Your task to perform on an android device: Clear the cart on walmart.com. Add "usb-a to usb-b" to the cart on walmart.com, then select checkout. Image 0: 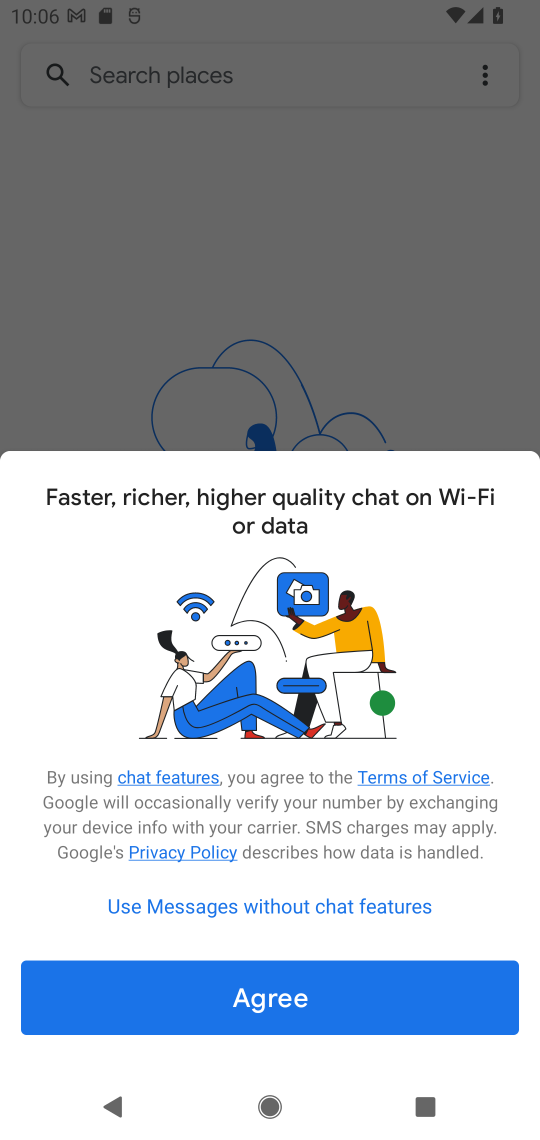
Step 0: press home button
Your task to perform on an android device: Clear the cart on walmart.com. Add "usb-a to usb-b" to the cart on walmart.com, then select checkout. Image 1: 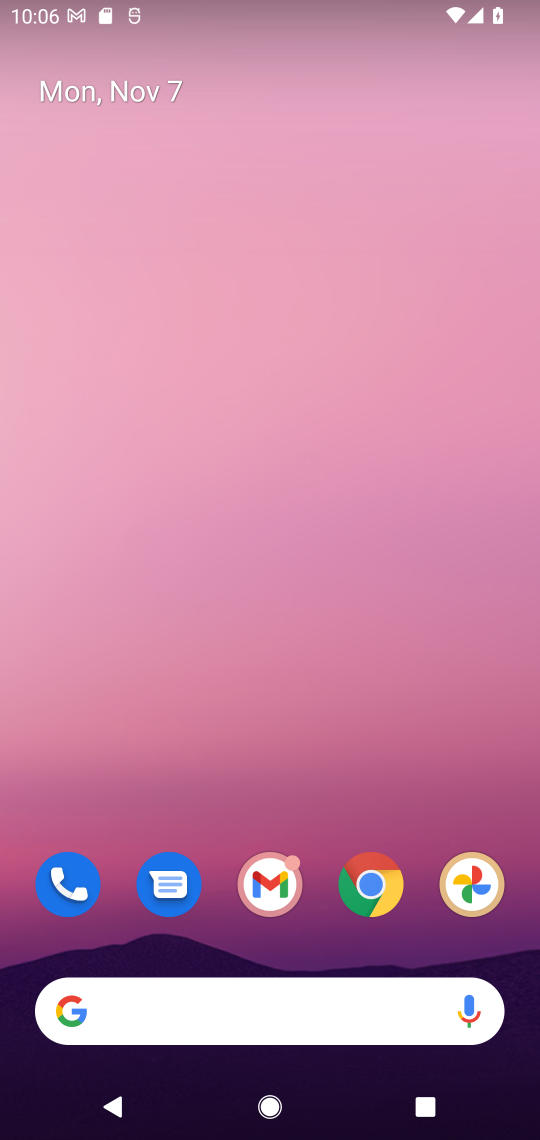
Step 1: click (380, 886)
Your task to perform on an android device: Clear the cart on walmart.com. Add "usb-a to usb-b" to the cart on walmart.com, then select checkout. Image 2: 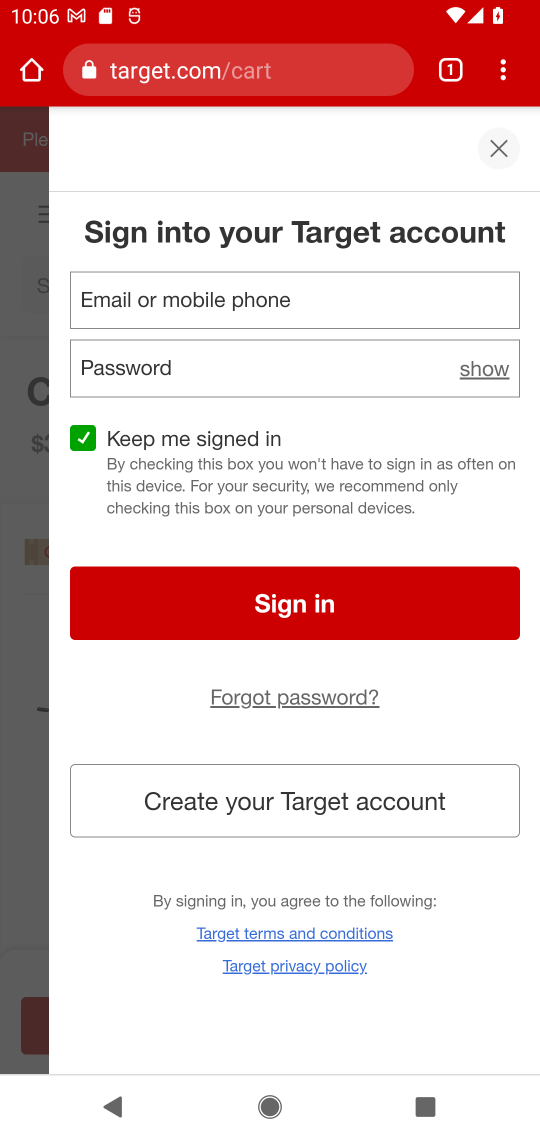
Step 2: click (327, 77)
Your task to perform on an android device: Clear the cart on walmart.com. Add "usb-a to usb-b" to the cart on walmart.com, then select checkout. Image 3: 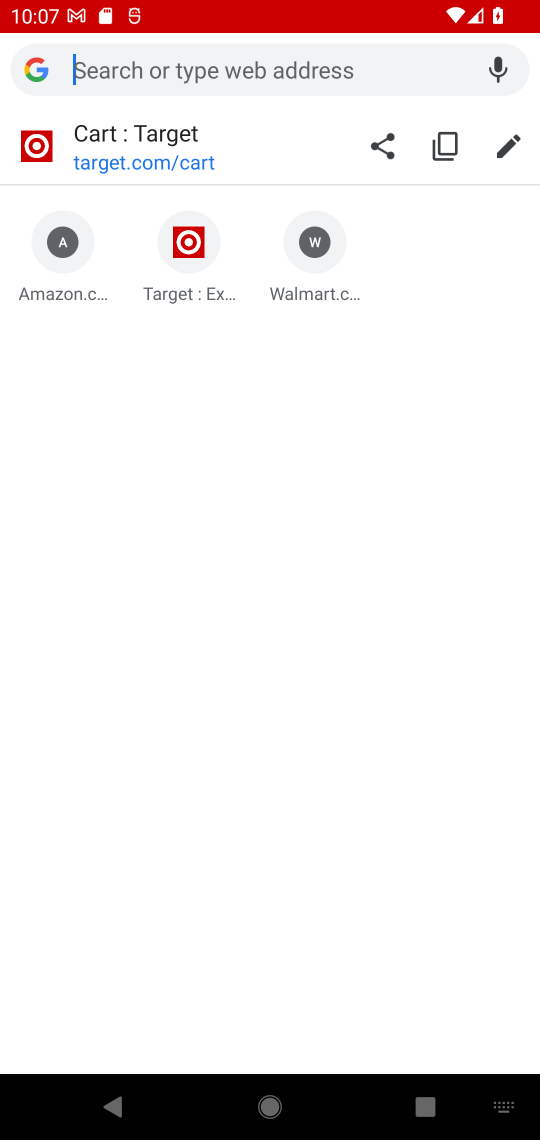
Step 3: type "walmart.com"
Your task to perform on an android device: Clear the cart on walmart.com. Add "usb-a to usb-b" to the cart on walmart.com, then select checkout. Image 4: 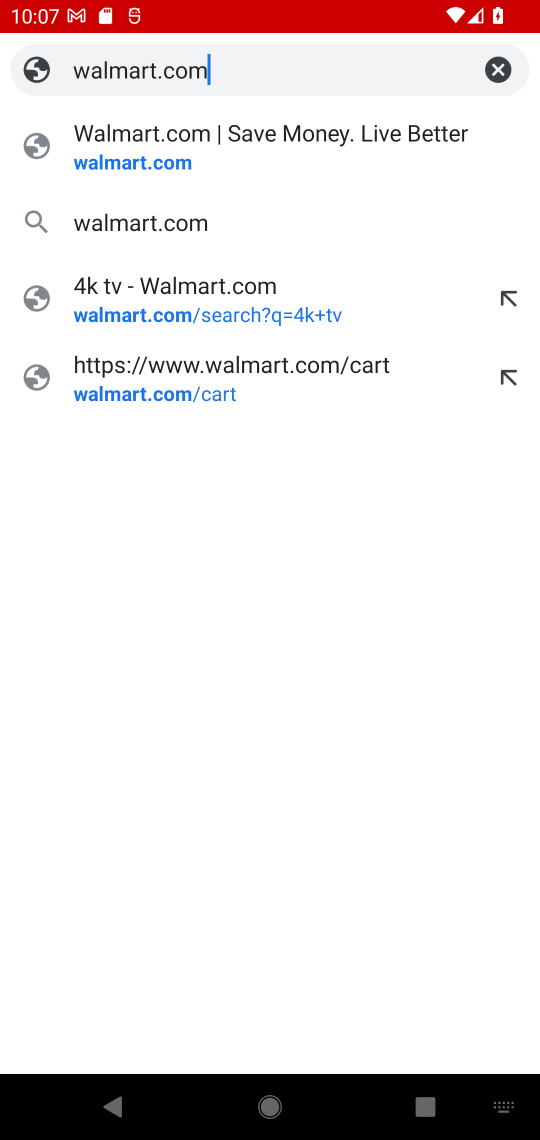
Step 4: click (198, 221)
Your task to perform on an android device: Clear the cart on walmart.com. Add "usb-a to usb-b" to the cart on walmart.com, then select checkout. Image 5: 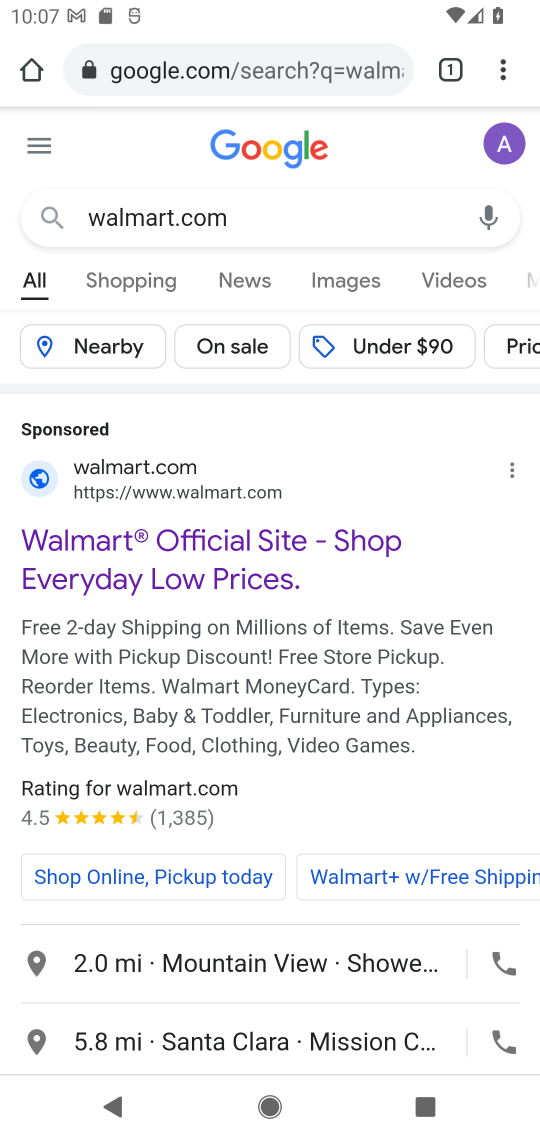
Step 5: click (188, 482)
Your task to perform on an android device: Clear the cart on walmart.com. Add "usb-a to usb-b" to the cart on walmart.com, then select checkout. Image 6: 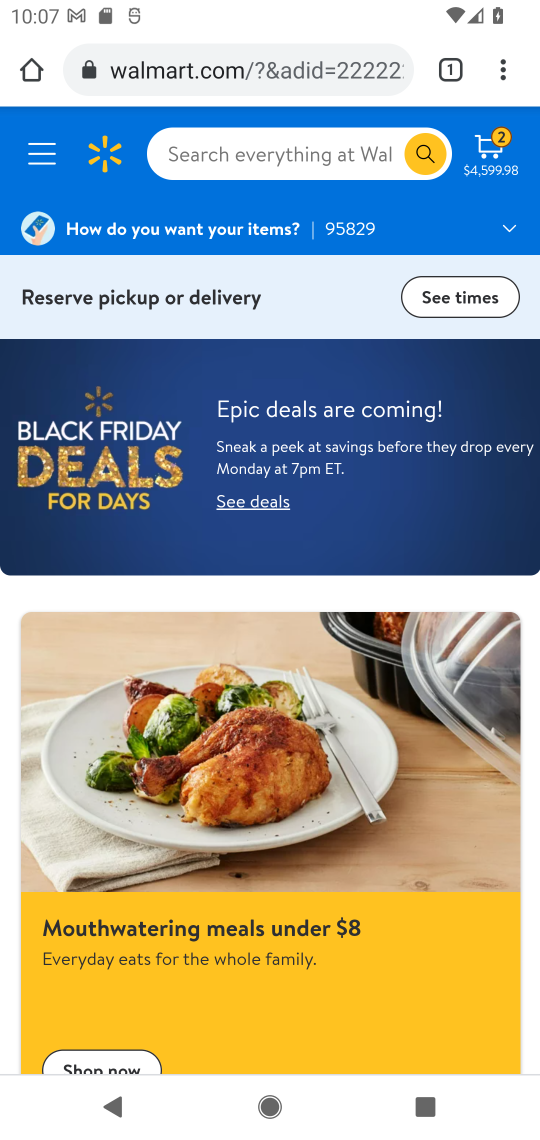
Step 6: click (498, 148)
Your task to perform on an android device: Clear the cart on walmart.com. Add "usb-a to usb-b" to the cart on walmart.com, then select checkout. Image 7: 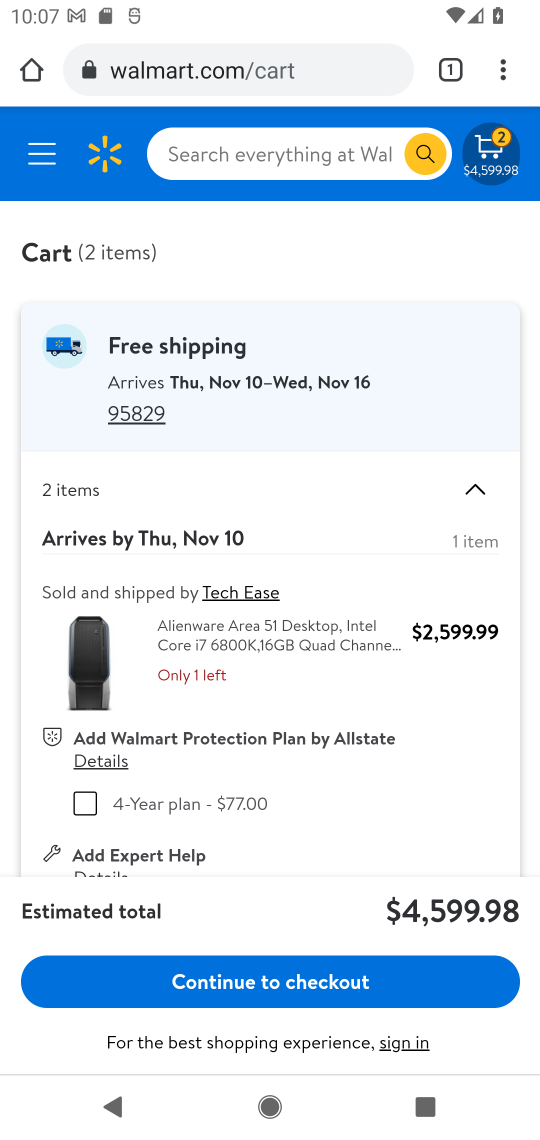
Step 7: drag from (403, 742) to (397, 561)
Your task to perform on an android device: Clear the cart on walmart.com. Add "usb-a to usb-b" to the cart on walmart.com, then select checkout. Image 8: 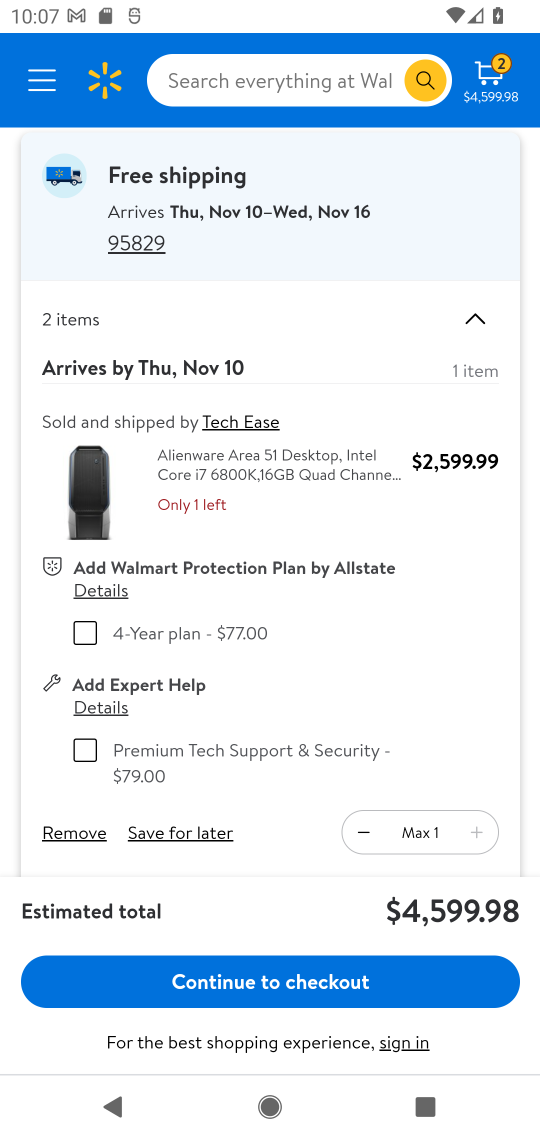
Step 8: drag from (481, 658) to (460, 506)
Your task to perform on an android device: Clear the cart on walmart.com. Add "usb-a to usb-b" to the cart on walmart.com, then select checkout. Image 9: 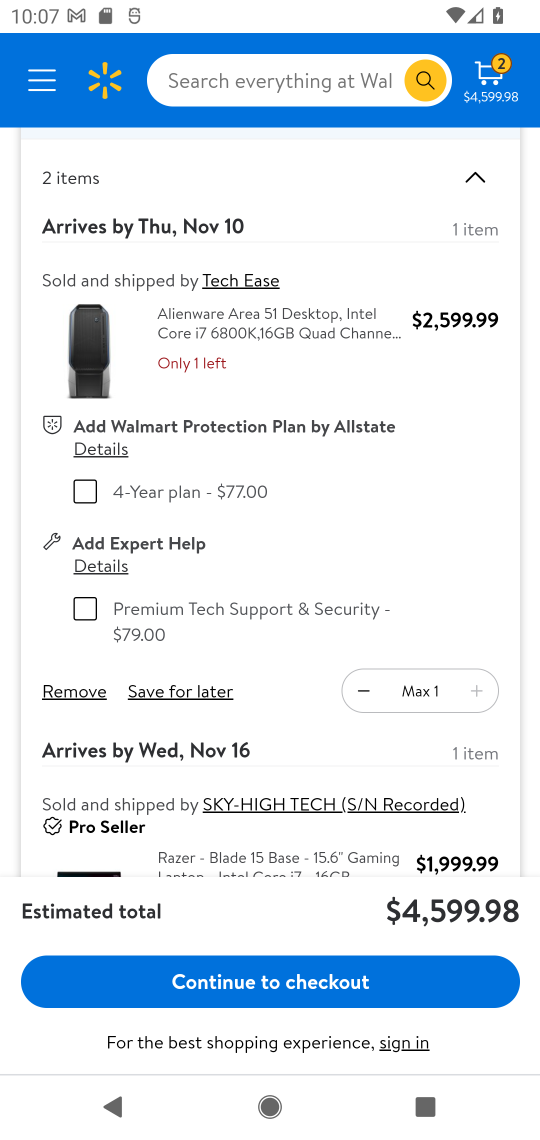
Step 9: click (87, 688)
Your task to perform on an android device: Clear the cart on walmart.com. Add "usb-a to usb-b" to the cart on walmart.com, then select checkout. Image 10: 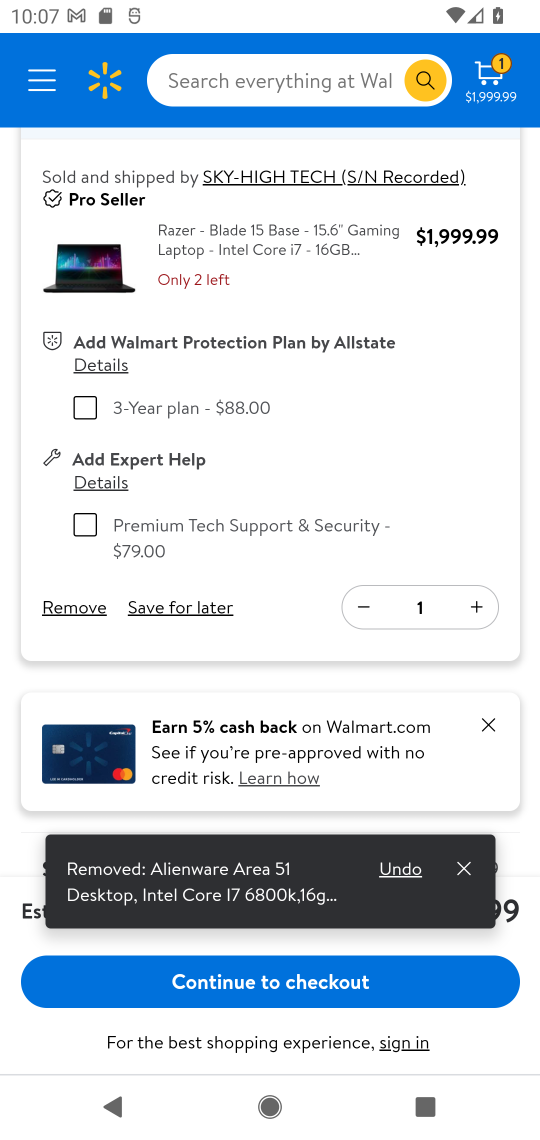
Step 10: click (95, 612)
Your task to perform on an android device: Clear the cart on walmart.com. Add "usb-a to usb-b" to the cart on walmart.com, then select checkout. Image 11: 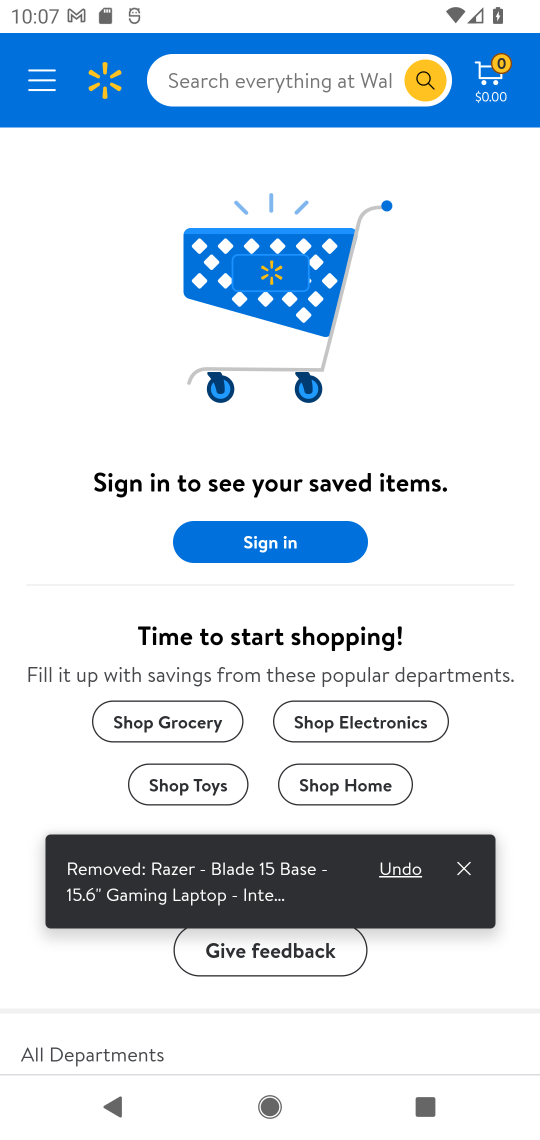
Step 11: click (273, 70)
Your task to perform on an android device: Clear the cart on walmart.com. Add "usb-a to usb-b" to the cart on walmart.com, then select checkout. Image 12: 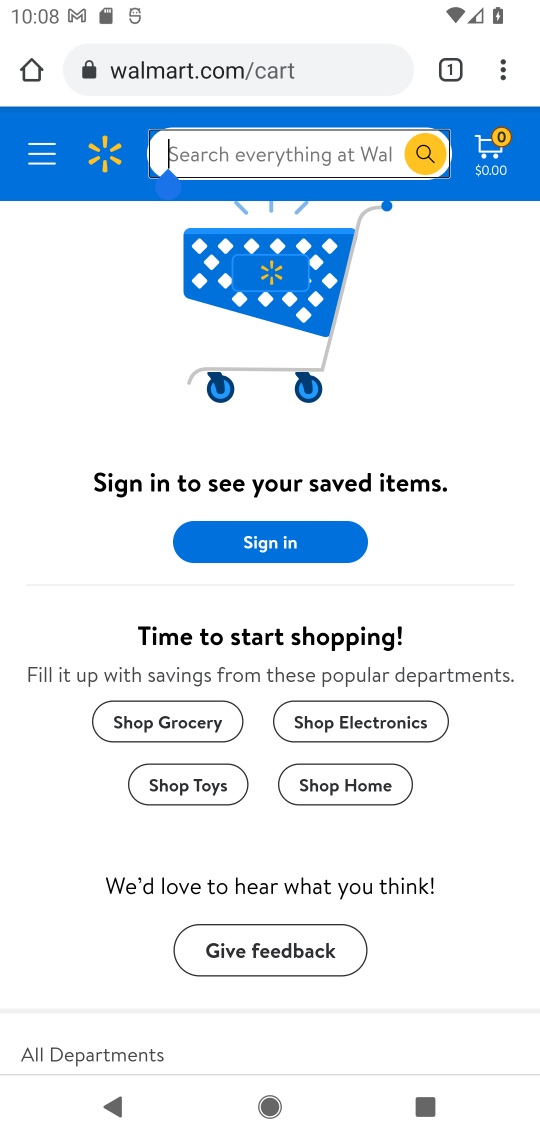
Step 12: type "usb-a to usb-b"
Your task to perform on an android device: Clear the cart on walmart.com. Add "usb-a to usb-b" to the cart on walmart.com, then select checkout. Image 13: 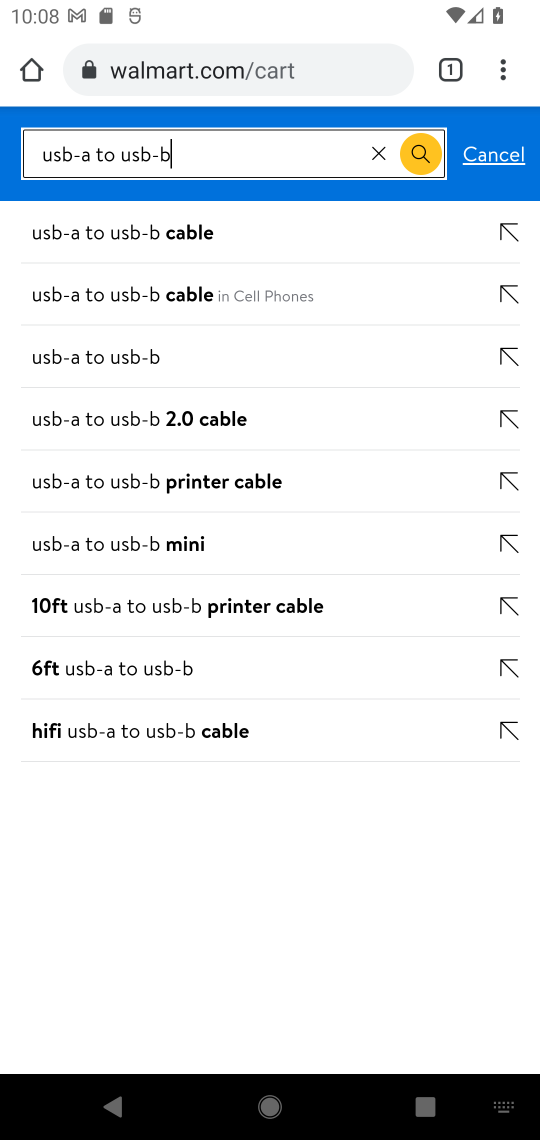
Step 13: click (118, 360)
Your task to perform on an android device: Clear the cart on walmart.com. Add "usb-a to usb-b" to the cart on walmart.com, then select checkout. Image 14: 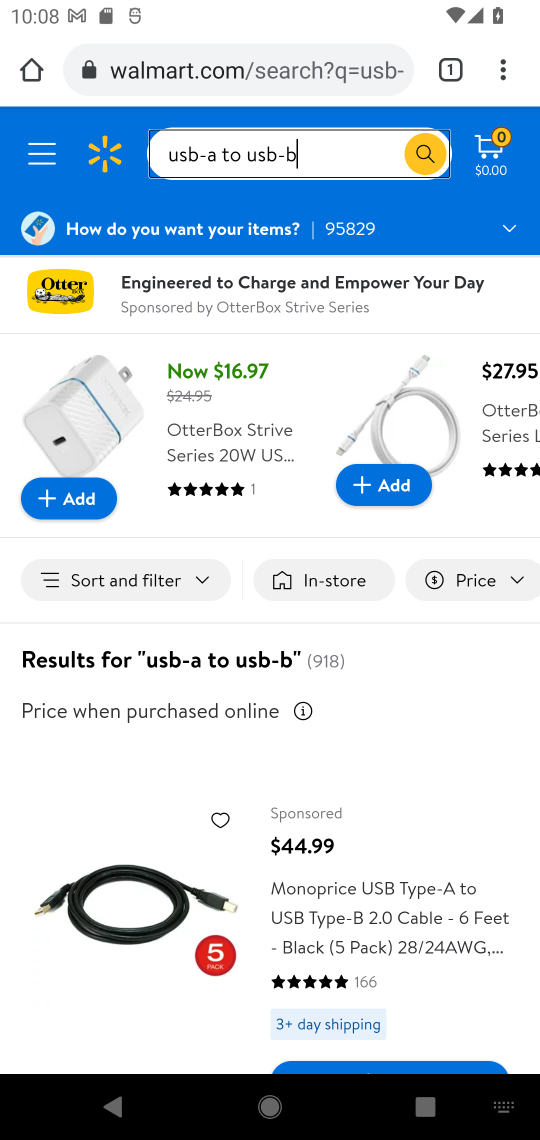
Step 14: drag from (444, 810) to (461, 534)
Your task to perform on an android device: Clear the cart on walmart.com. Add "usb-a to usb-b" to the cart on walmart.com, then select checkout. Image 15: 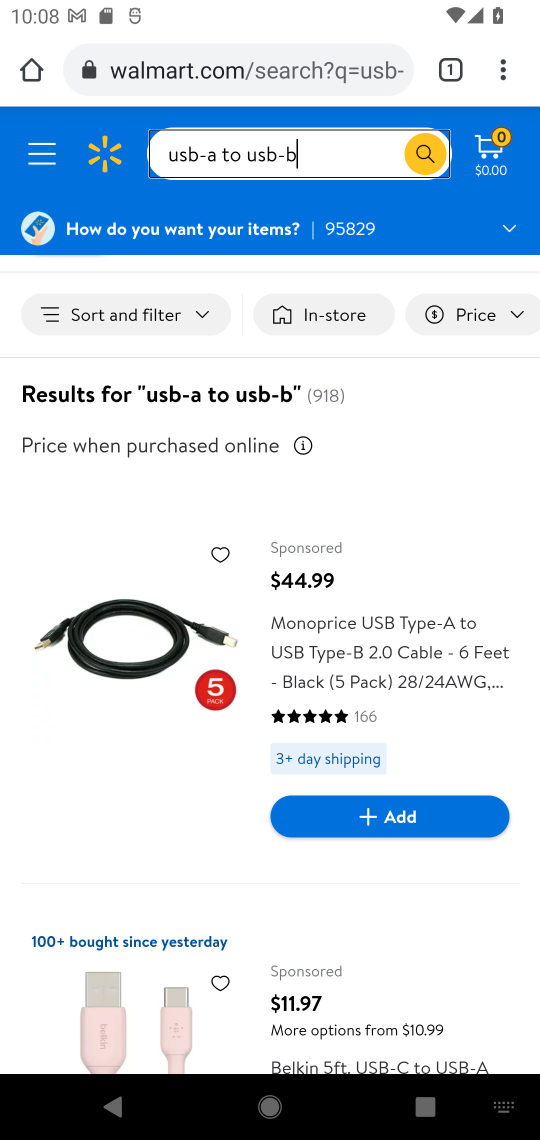
Step 15: click (65, 646)
Your task to perform on an android device: Clear the cart on walmart.com. Add "usb-a to usb-b" to the cart on walmart.com, then select checkout. Image 16: 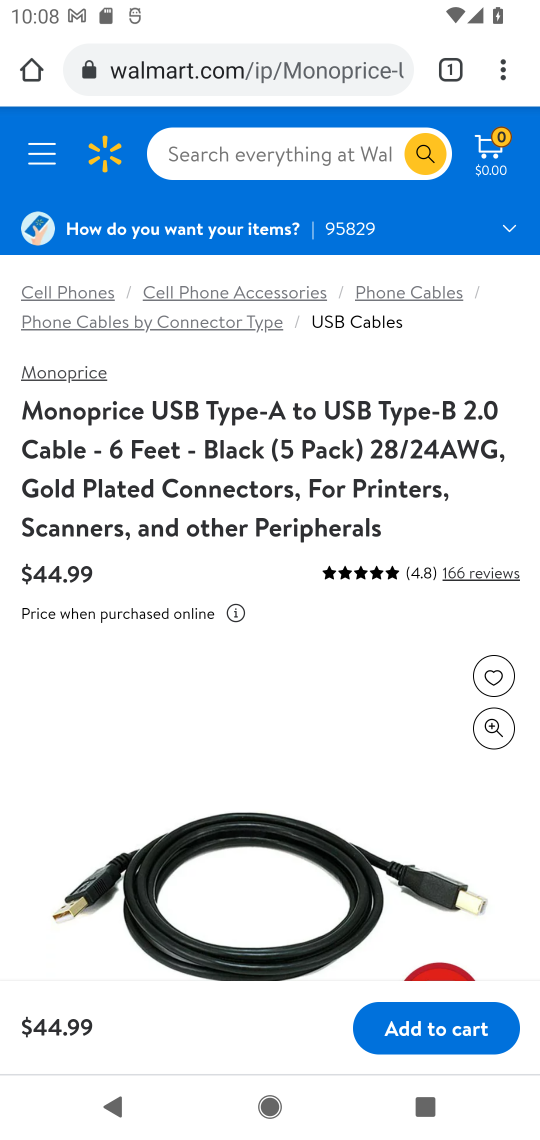
Step 16: click (416, 1034)
Your task to perform on an android device: Clear the cart on walmart.com. Add "usb-a to usb-b" to the cart on walmart.com, then select checkout. Image 17: 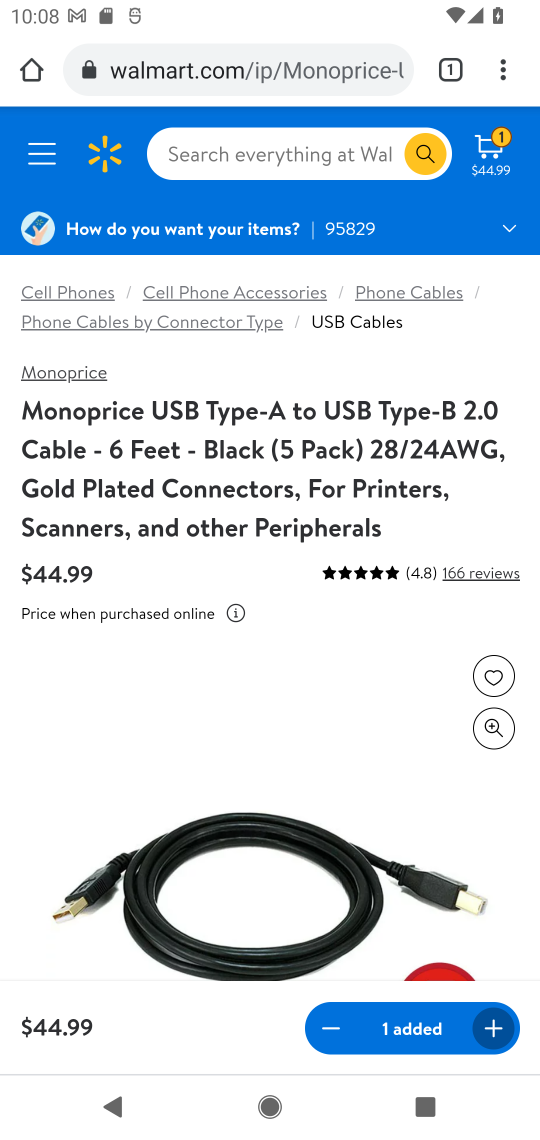
Step 17: click (500, 160)
Your task to perform on an android device: Clear the cart on walmart.com. Add "usb-a to usb-b" to the cart on walmart.com, then select checkout. Image 18: 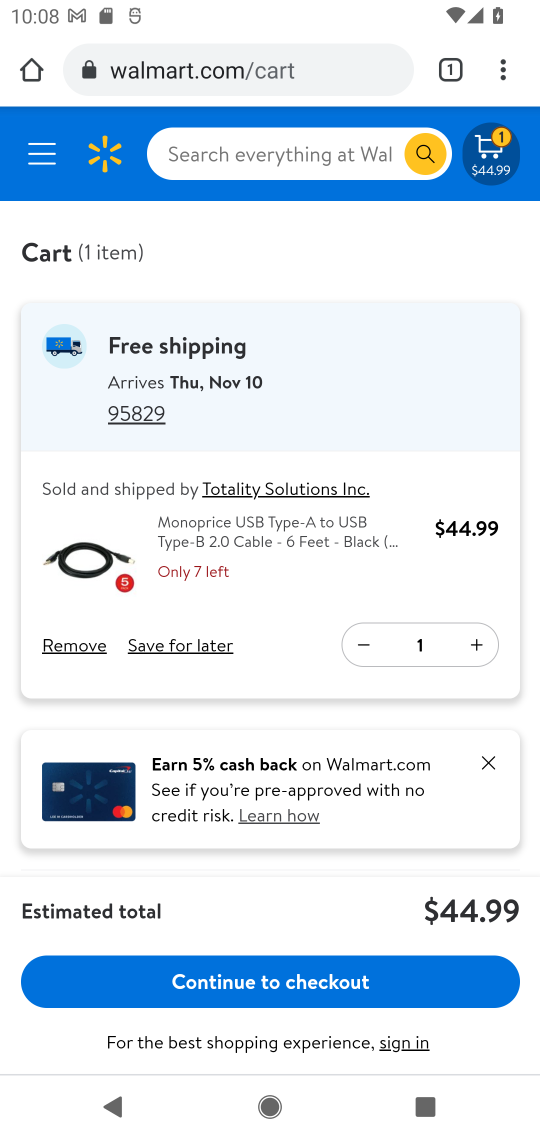
Step 18: click (279, 973)
Your task to perform on an android device: Clear the cart on walmart.com. Add "usb-a to usb-b" to the cart on walmart.com, then select checkout. Image 19: 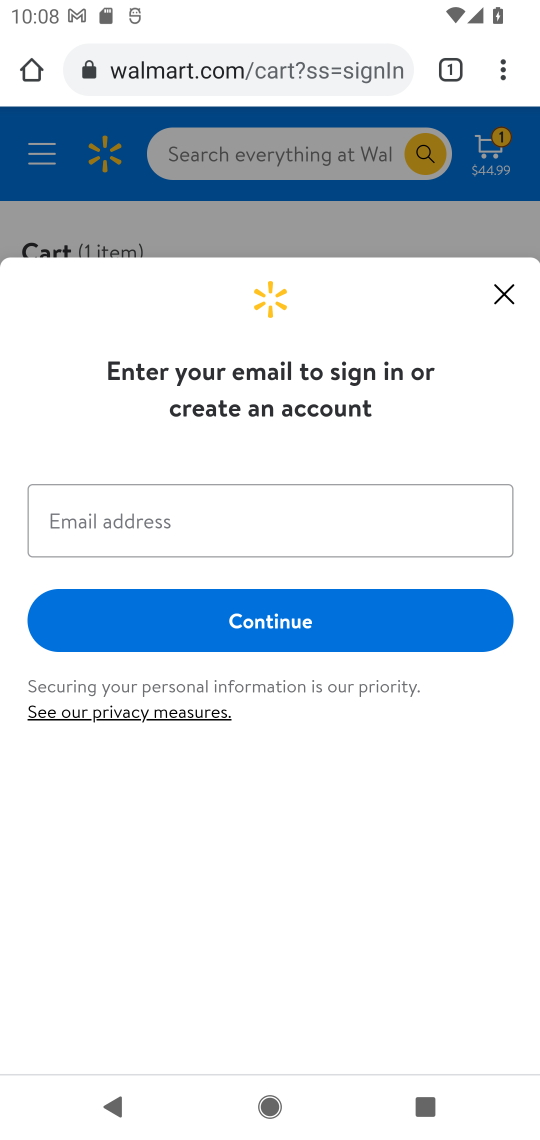
Step 19: task complete